Your task to perform on an android device: toggle translation in the chrome app Image 0: 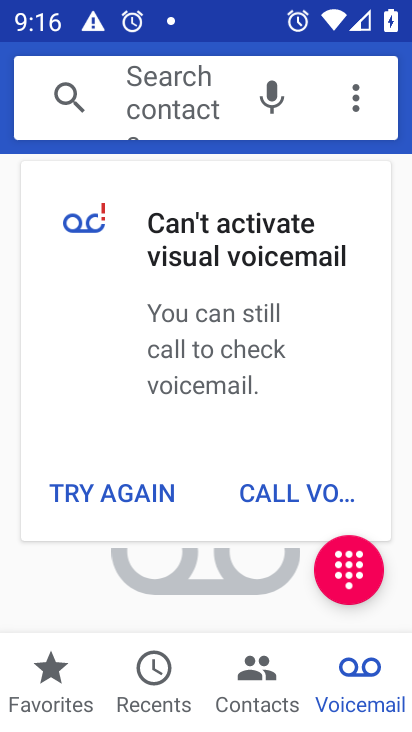
Step 0: press home button
Your task to perform on an android device: toggle translation in the chrome app Image 1: 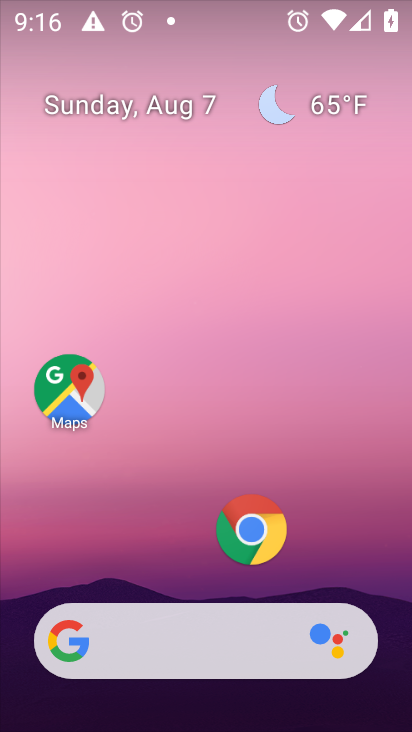
Step 1: click (260, 537)
Your task to perform on an android device: toggle translation in the chrome app Image 2: 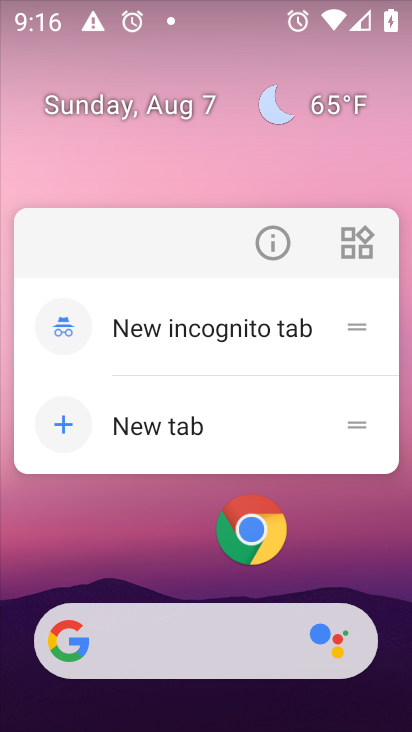
Step 2: click (285, 532)
Your task to perform on an android device: toggle translation in the chrome app Image 3: 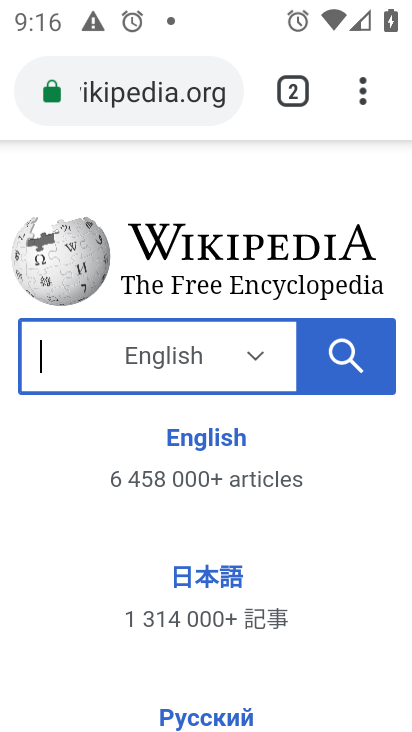
Step 3: click (355, 79)
Your task to perform on an android device: toggle translation in the chrome app Image 4: 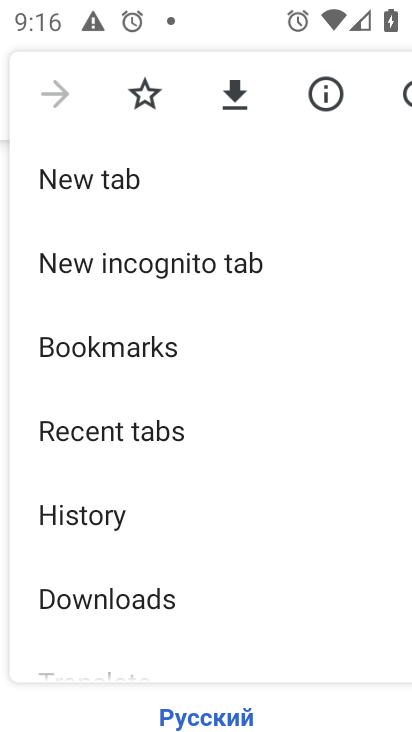
Step 4: drag from (102, 501) to (116, 304)
Your task to perform on an android device: toggle translation in the chrome app Image 5: 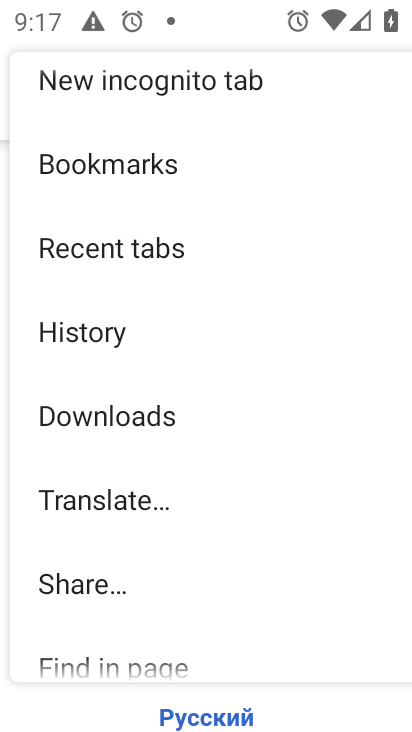
Step 5: drag from (138, 507) to (160, 372)
Your task to perform on an android device: toggle translation in the chrome app Image 6: 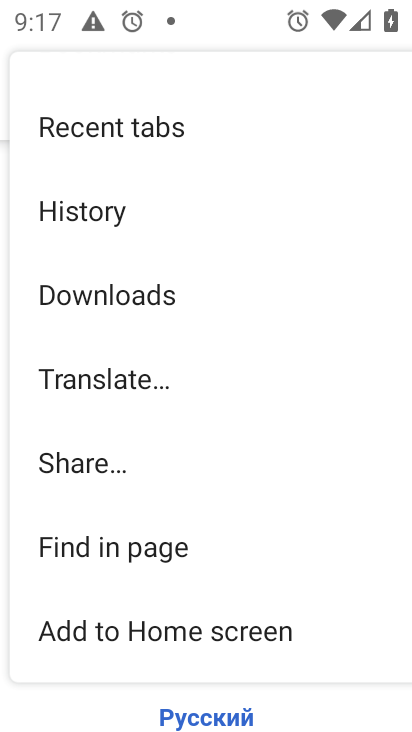
Step 6: drag from (162, 568) to (175, 463)
Your task to perform on an android device: toggle translation in the chrome app Image 7: 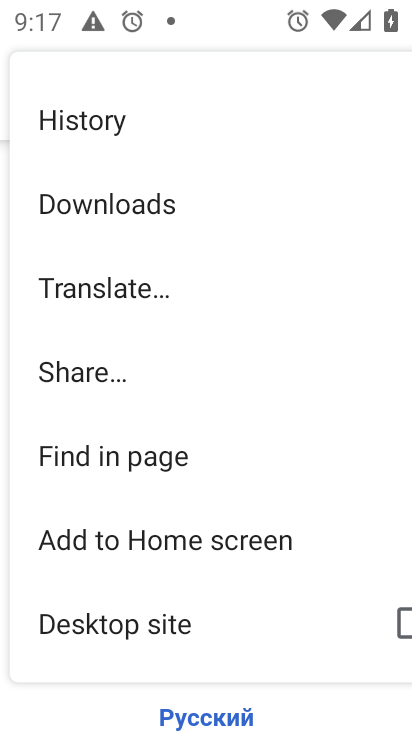
Step 7: drag from (164, 580) to (165, 390)
Your task to perform on an android device: toggle translation in the chrome app Image 8: 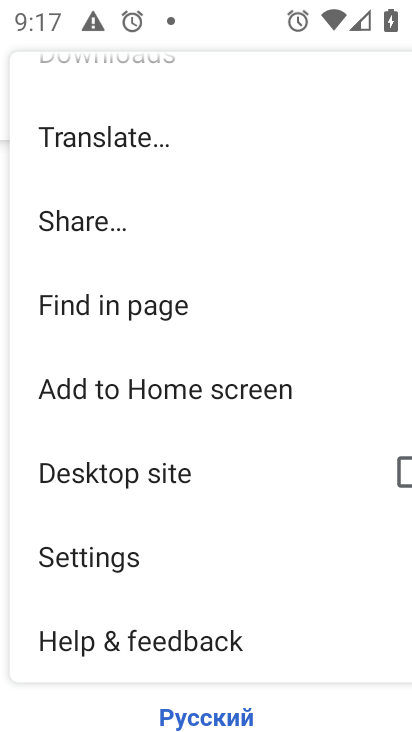
Step 8: click (116, 569)
Your task to perform on an android device: toggle translation in the chrome app Image 9: 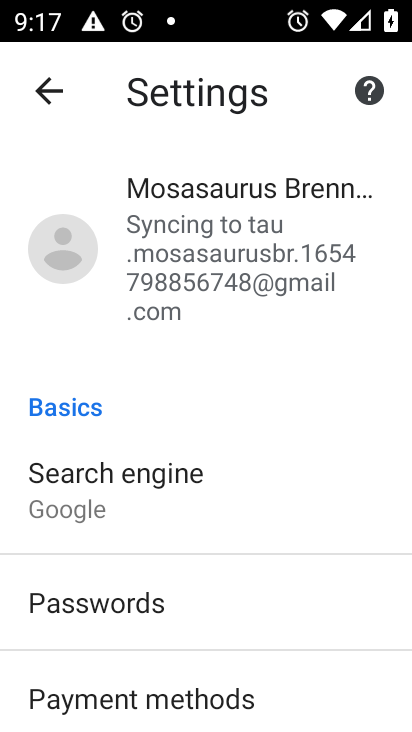
Step 9: drag from (149, 632) to (161, 408)
Your task to perform on an android device: toggle translation in the chrome app Image 10: 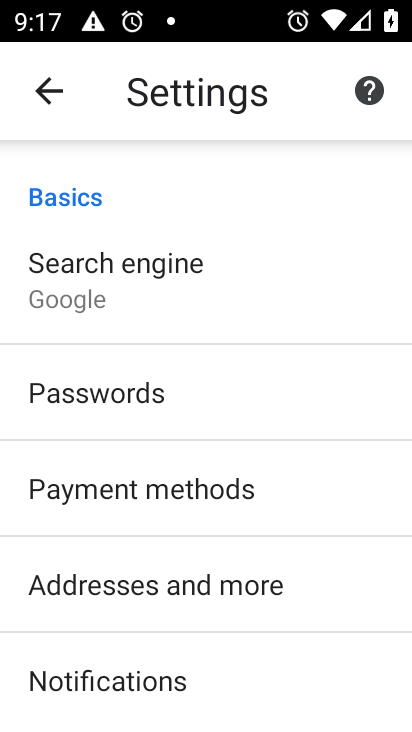
Step 10: drag from (161, 529) to (171, 295)
Your task to perform on an android device: toggle translation in the chrome app Image 11: 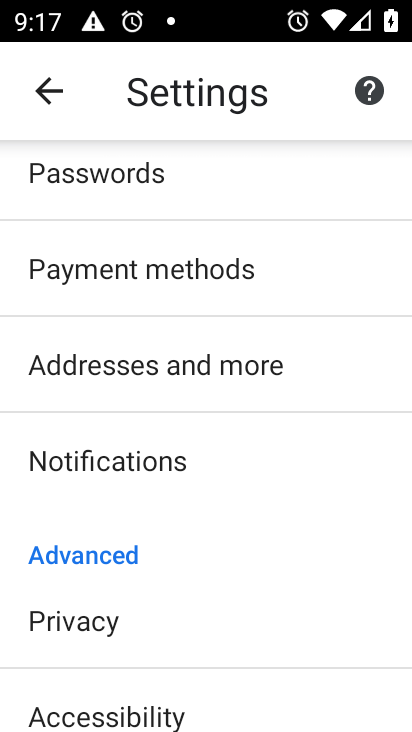
Step 11: drag from (99, 564) to (118, 406)
Your task to perform on an android device: toggle translation in the chrome app Image 12: 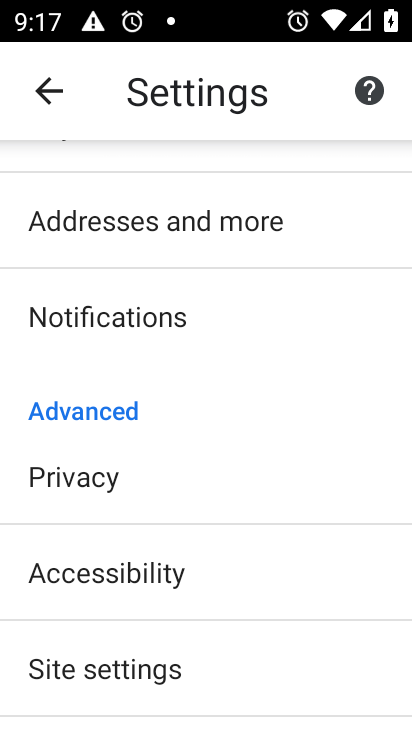
Step 12: drag from (127, 602) to (146, 274)
Your task to perform on an android device: toggle translation in the chrome app Image 13: 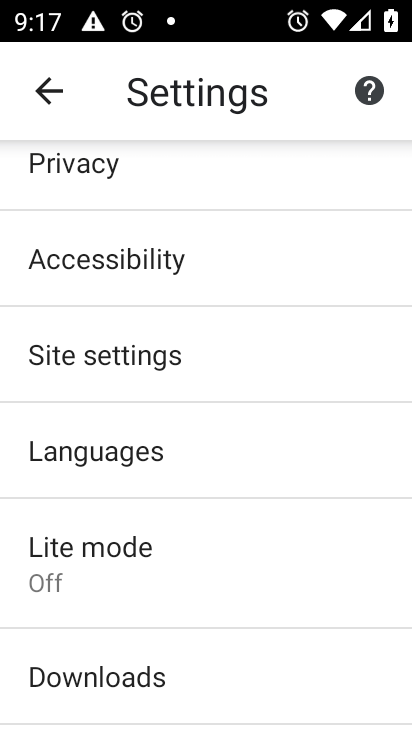
Step 13: click (104, 457)
Your task to perform on an android device: toggle translation in the chrome app Image 14: 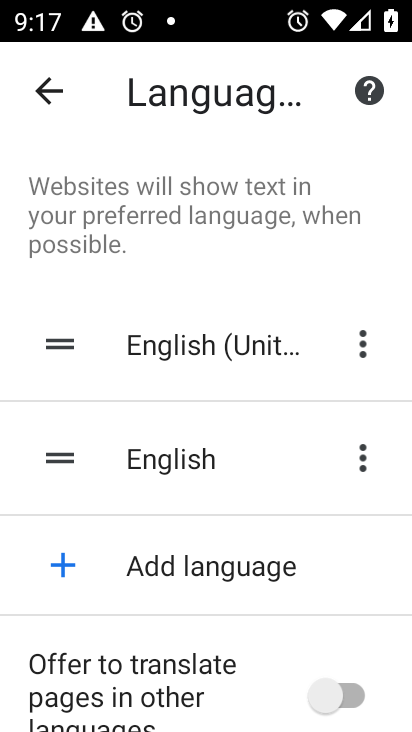
Step 14: drag from (173, 603) to (183, 413)
Your task to perform on an android device: toggle translation in the chrome app Image 15: 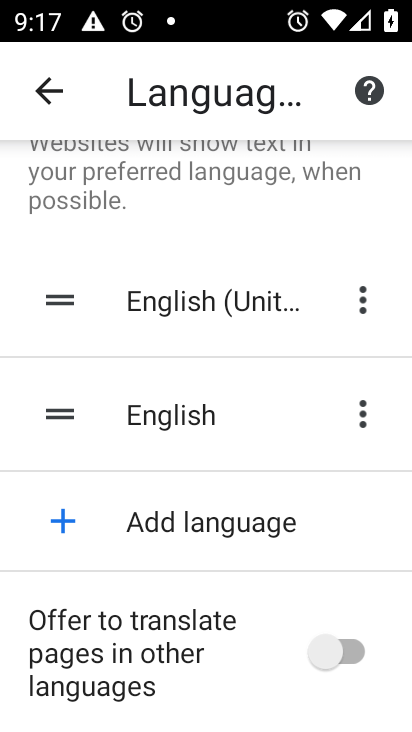
Step 15: click (373, 657)
Your task to perform on an android device: toggle translation in the chrome app Image 16: 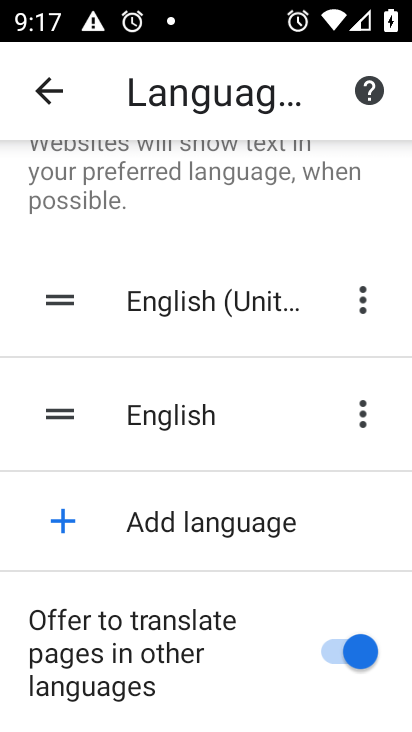
Step 16: task complete